Your task to perform on an android device: turn pop-ups on in chrome Image 0: 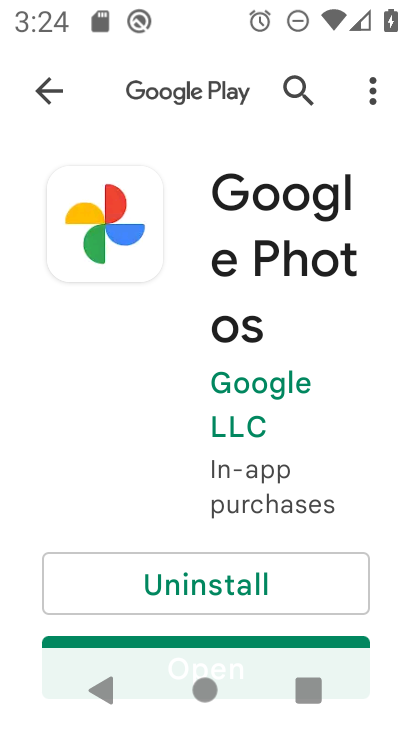
Step 0: press home button
Your task to perform on an android device: turn pop-ups on in chrome Image 1: 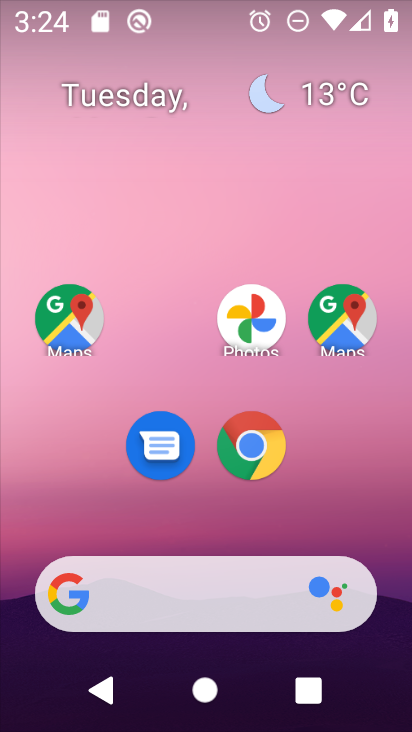
Step 1: drag from (384, 557) to (387, 216)
Your task to perform on an android device: turn pop-ups on in chrome Image 2: 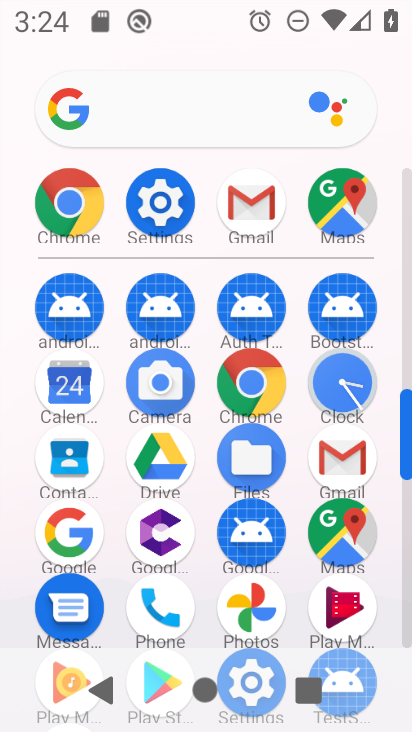
Step 2: click (266, 401)
Your task to perform on an android device: turn pop-ups on in chrome Image 3: 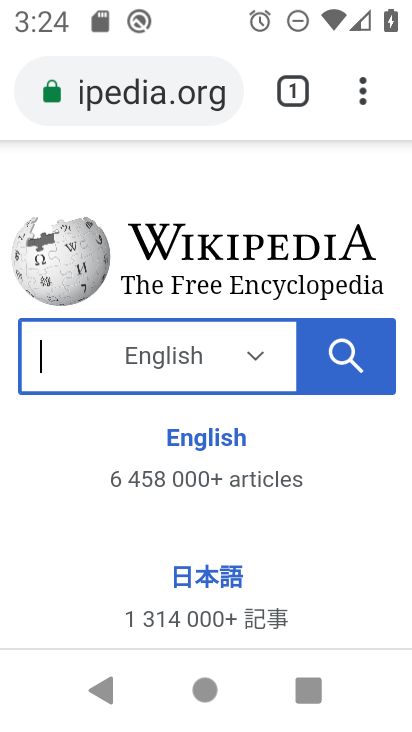
Step 3: click (363, 109)
Your task to perform on an android device: turn pop-ups on in chrome Image 4: 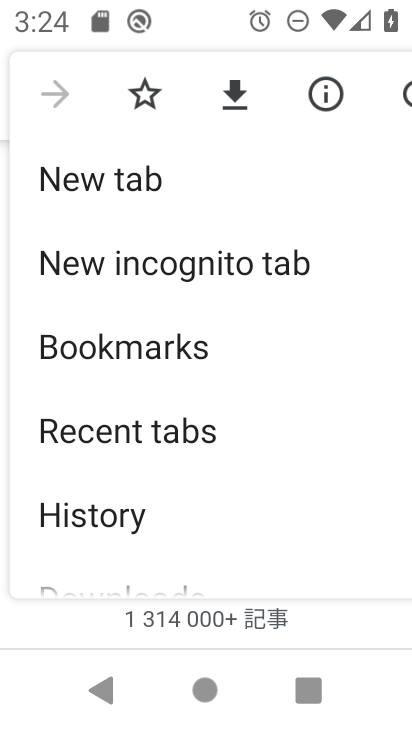
Step 4: drag from (331, 457) to (337, 367)
Your task to perform on an android device: turn pop-ups on in chrome Image 5: 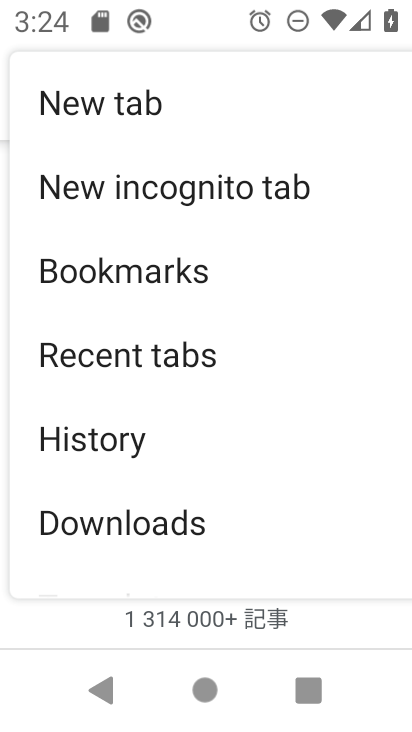
Step 5: drag from (330, 522) to (338, 439)
Your task to perform on an android device: turn pop-ups on in chrome Image 6: 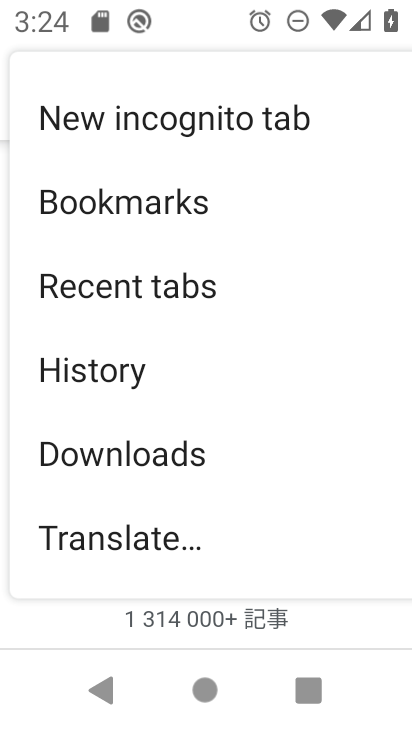
Step 6: drag from (320, 524) to (335, 444)
Your task to perform on an android device: turn pop-ups on in chrome Image 7: 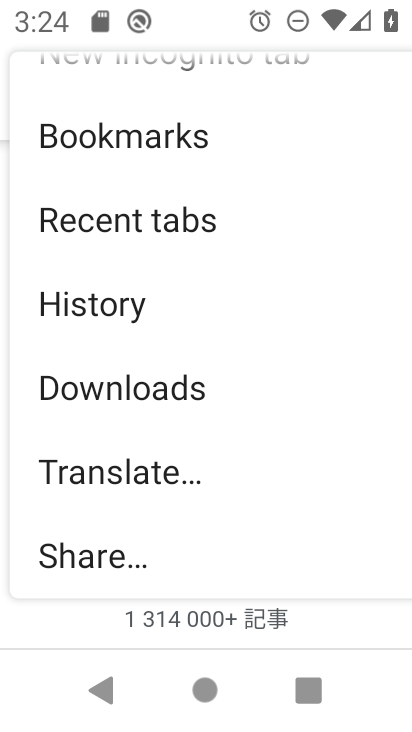
Step 7: drag from (324, 528) to (326, 458)
Your task to perform on an android device: turn pop-ups on in chrome Image 8: 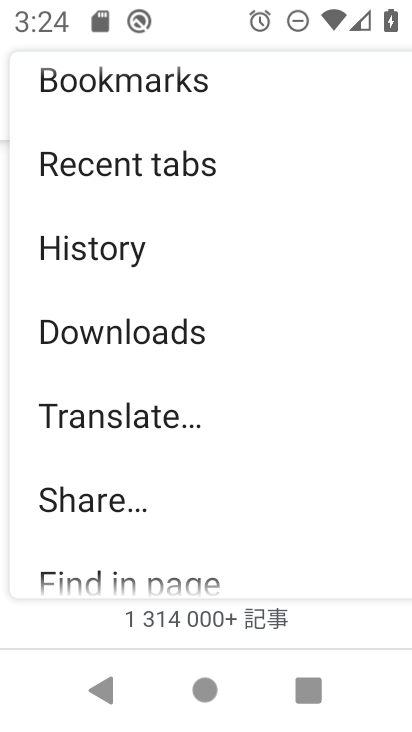
Step 8: drag from (324, 544) to (334, 488)
Your task to perform on an android device: turn pop-ups on in chrome Image 9: 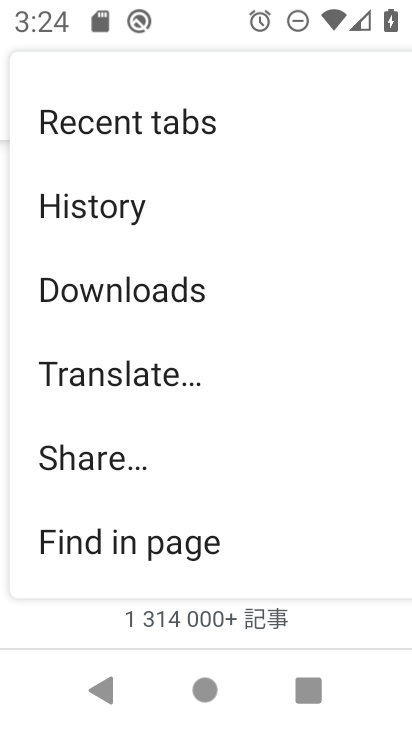
Step 9: drag from (325, 552) to (332, 491)
Your task to perform on an android device: turn pop-ups on in chrome Image 10: 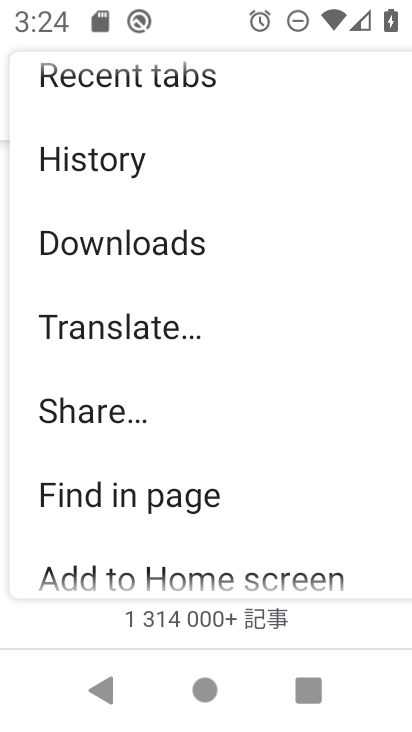
Step 10: drag from (328, 519) to (336, 428)
Your task to perform on an android device: turn pop-ups on in chrome Image 11: 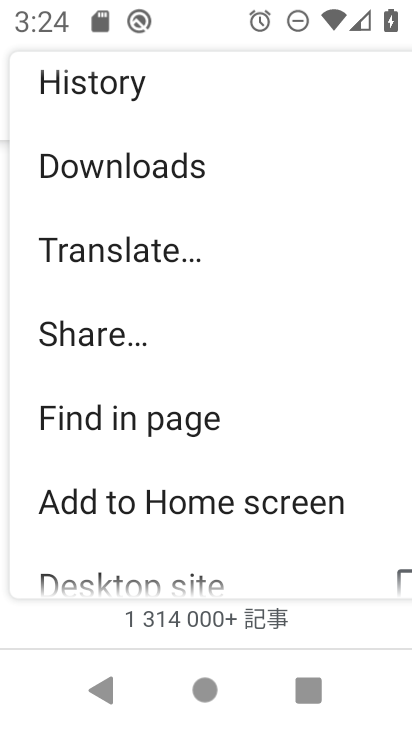
Step 11: drag from (321, 540) to (330, 451)
Your task to perform on an android device: turn pop-ups on in chrome Image 12: 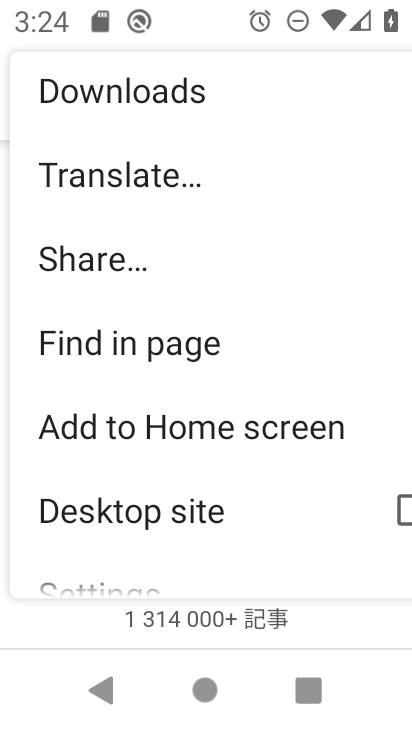
Step 12: drag from (320, 530) to (328, 445)
Your task to perform on an android device: turn pop-ups on in chrome Image 13: 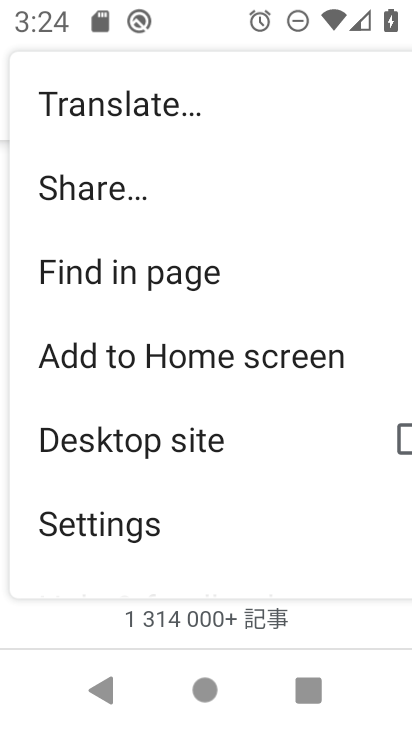
Step 13: drag from (307, 532) to (307, 427)
Your task to perform on an android device: turn pop-ups on in chrome Image 14: 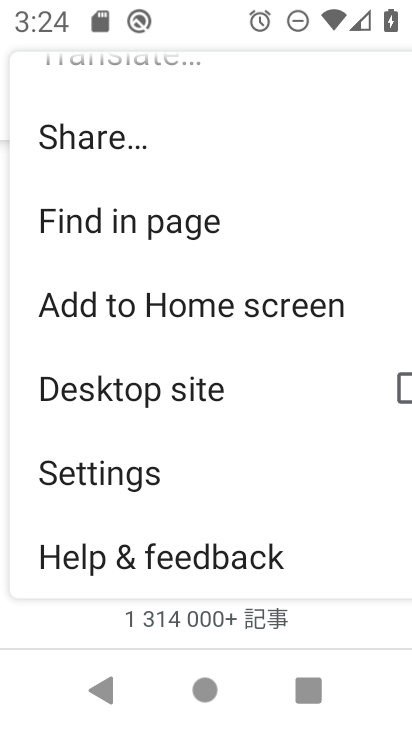
Step 14: click (162, 487)
Your task to perform on an android device: turn pop-ups on in chrome Image 15: 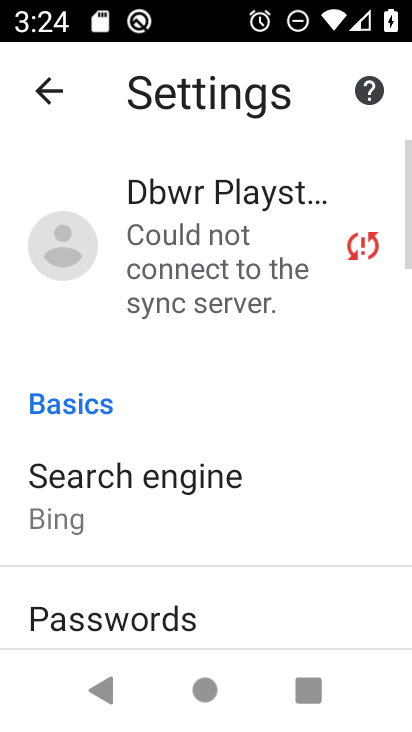
Step 15: drag from (294, 511) to (307, 442)
Your task to perform on an android device: turn pop-ups on in chrome Image 16: 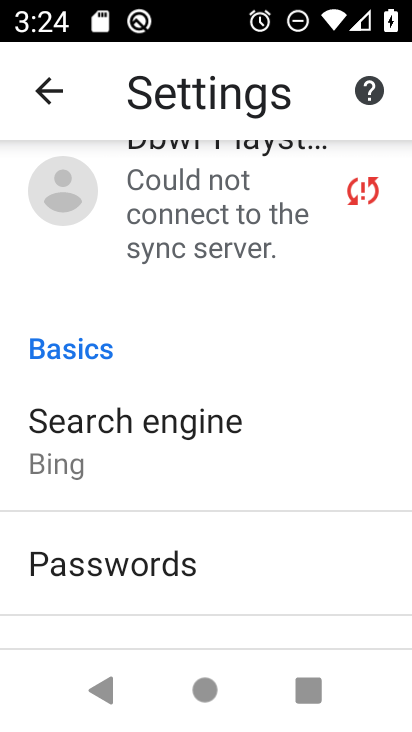
Step 16: drag from (308, 532) to (319, 451)
Your task to perform on an android device: turn pop-ups on in chrome Image 17: 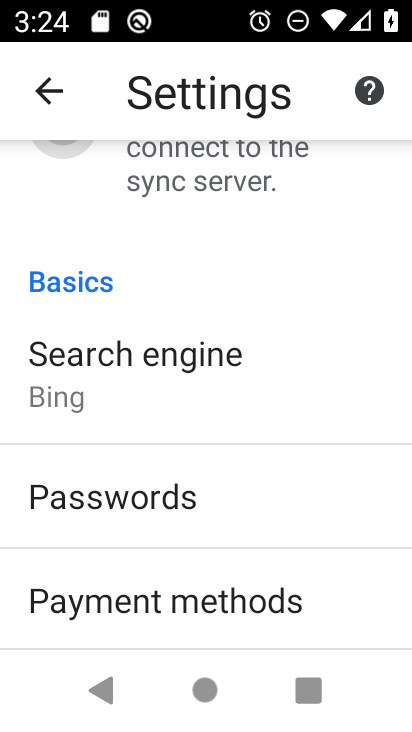
Step 17: drag from (315, 550) to (320, 476)
Your task to perform on an android device: turn pop-ups on in chrome Image 18: 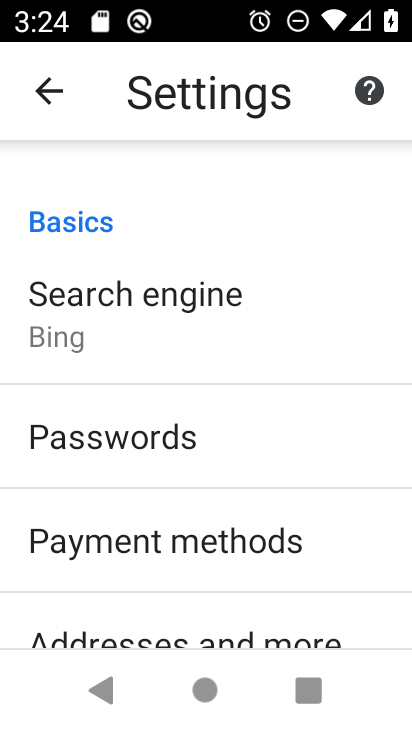
Step 18: drag from (310, 589) to (310, 497)
Your task to perform on an android device: turn pop-ups on in chrome Image 19: 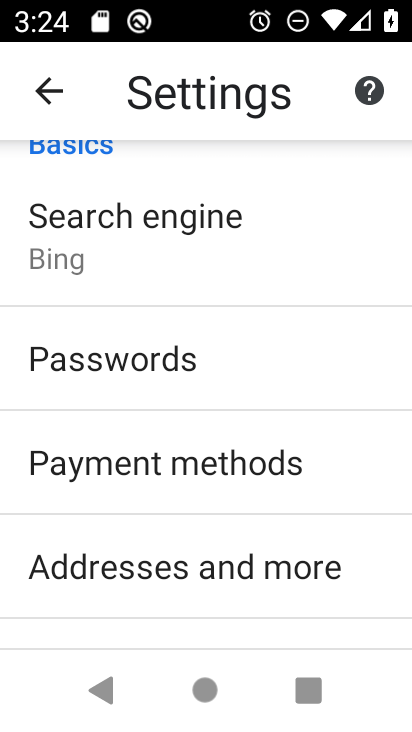
Step 19: drag from (306, 578) to (321, 490)
Your task to perform on an android device: turn pop-ups on in chrome Image 20: 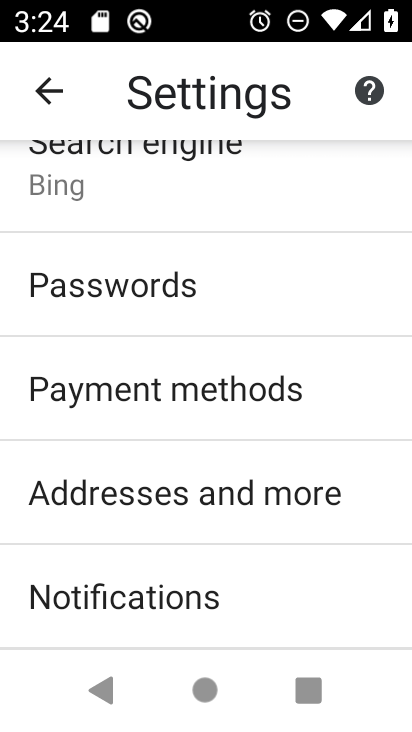
Step 20: drag from (306, 583) to (316, 495)
Your task to perform on an android device: turn pop-ups on in chrome Image 21: 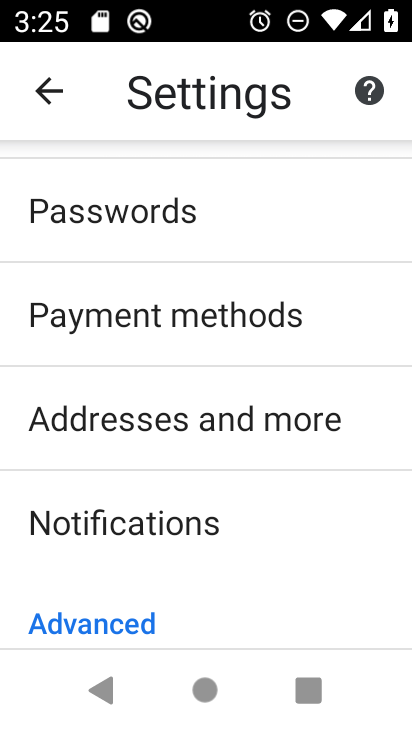
Step 21: drag from (305, 583) to (310, 489)
Your task to perform on an android device: turn pop-ups on in chrome Image 22: 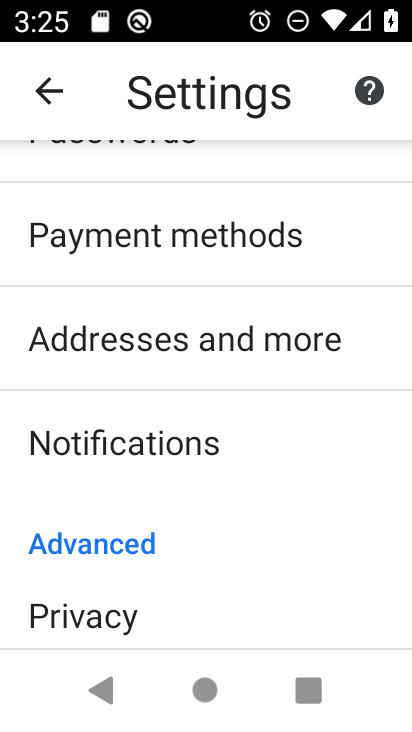
Step 22: drag from (313, 582) to (322, 503)
Your task to perform on an android device: turn pop-ups on in chrome Image 23: 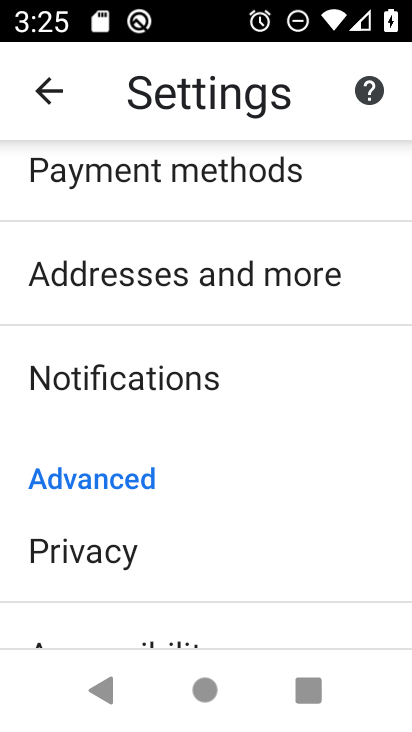
Step 23: drag from (308, 603) to (317, 517)
Your task to perform on an android device: turn pop-ups on in chrome Image 24: 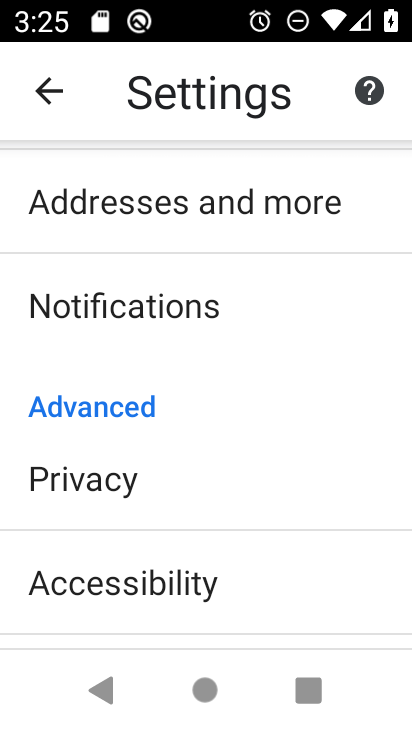
Step 24: drag from (312, 584) to (319, 506)
Your task to perform on an android device: turn pop-ups on in chrome Image 25: 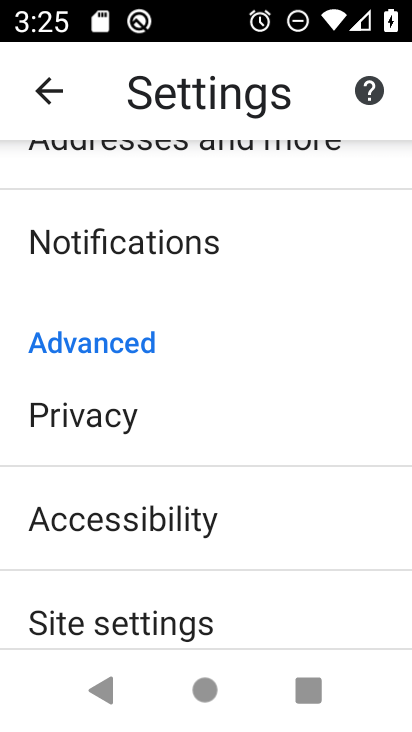
Step 25: drag from (310, 589) to (318, 501)
Your task to perform on an android device: turn pop-ups on in chrome Image 26: 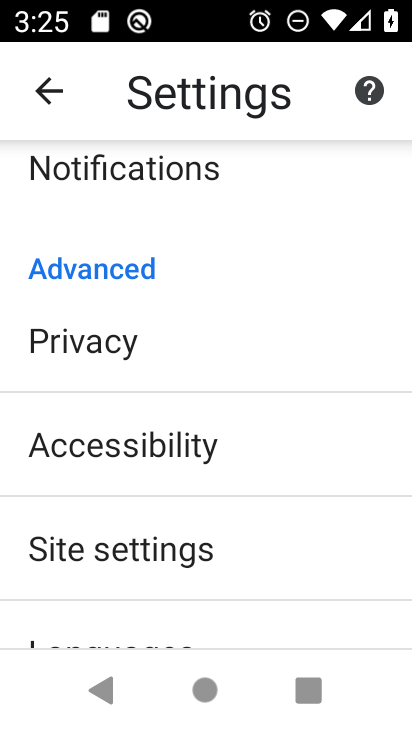
Step 26: drag from (306, 584) to (315, 483)
Your task to perform on an android device: turn pop-ups on in chrome Image 27: 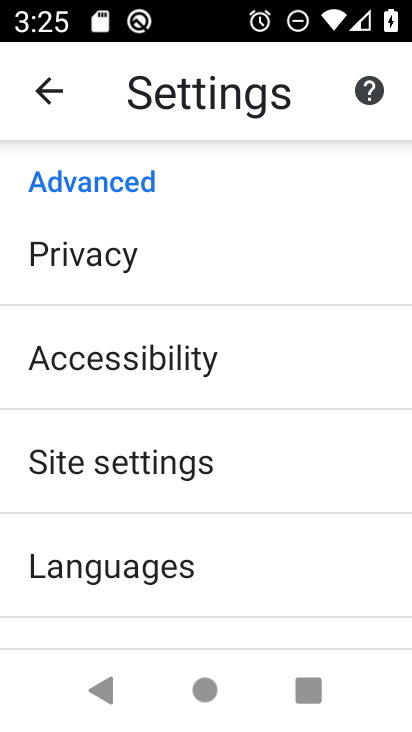
Step 27: click (292, 489)
Your task to perform on an android device: turn pop-ups on in chrome Image 28: 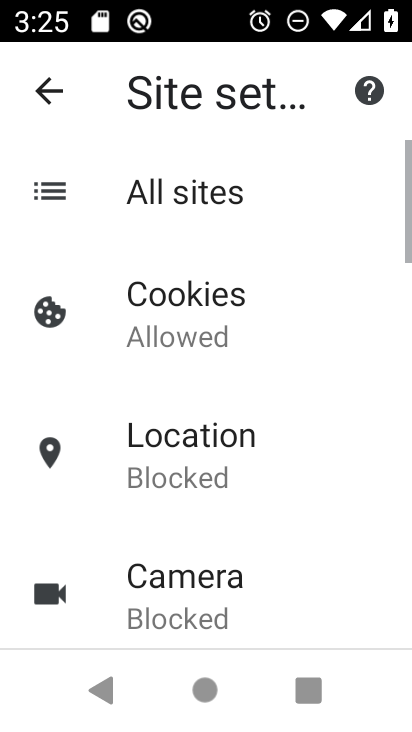
Step 28: drag from (303, 555) to (313, 464)
Your task to perform on an android device: turn pop-ups on in chrome Image 29: 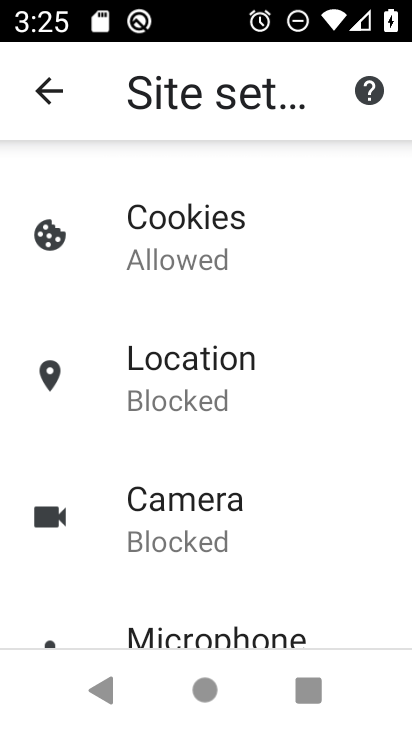
Step 29: drag from (308, 568) to (314, 479)
Your task to perform on an android device: turn pop-ups on in chrome Image 30: 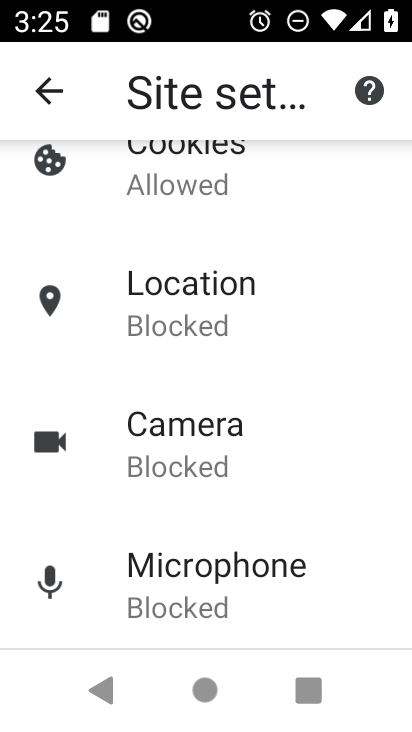
Step 30: drag from (315, 596) to (317, 507)
Your task to perform on an android device: turn pop-ups on in chrome Image 31: 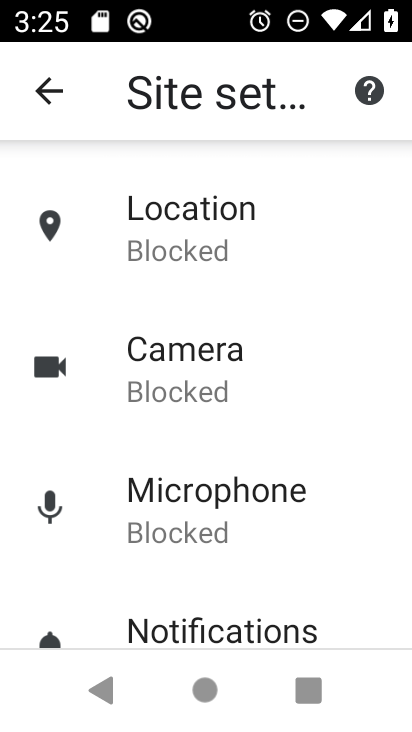
Step 31: drag from (316, 580) to (319, 484)
Your task to perform on an android device: turn pop-ups on in chrome Image 32: 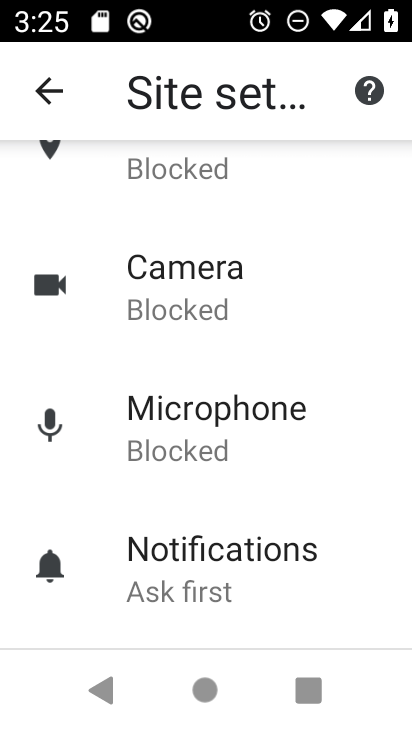
Step 32: drag from (324, 593) to (329, 513)
Your task to perform on an android device: turn pop-ups on in chrome Image 33: 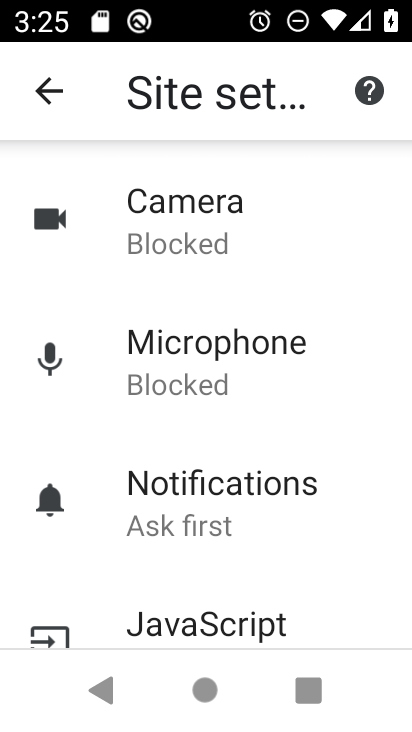
Step 33: drag from (329, 603) to (335, 517)
Your task to perform on an android device: turn pop-ups on in chrome Image 34: 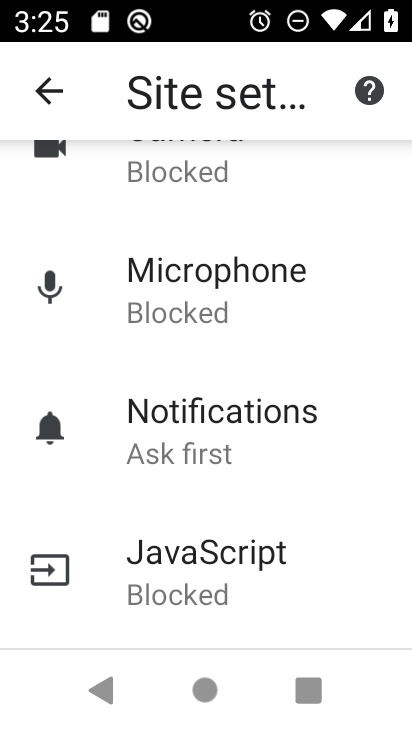
Step 34: drag from (333, 596) to (340, 516)
Your task to perform on an android device: turn pop-ups on in chrome Image 35: 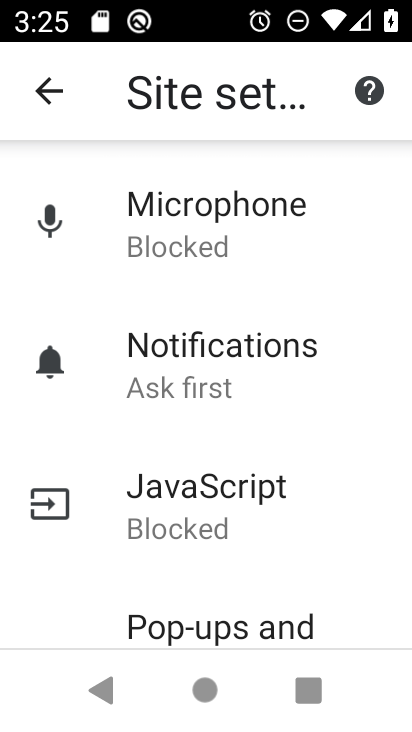
Step 35: drag from (340, 604) to (344, 499)
Your task to perform on an android device: turn pop-ups on in chrome Image 36: 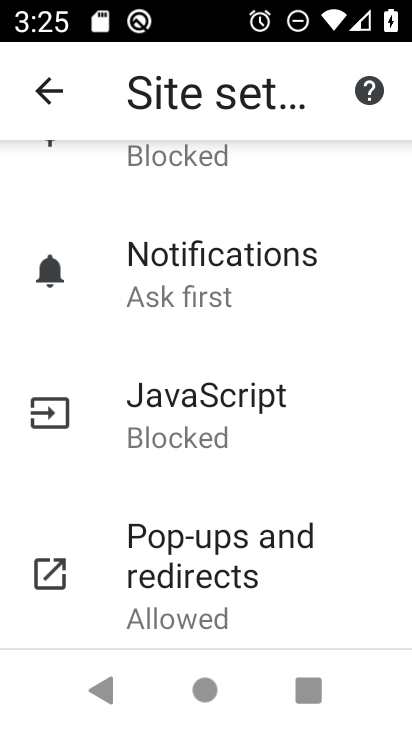
Step 36: click (294, 564)
Your task to perform on an android device: turn pop-ups on in chrome Image 37: 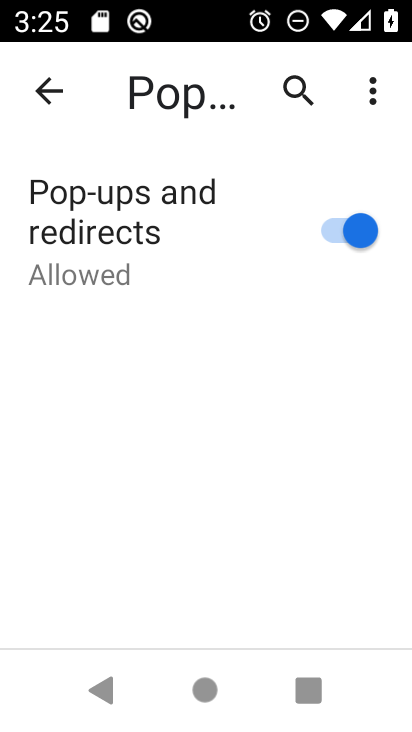
Step 37: task complete